Your task to perform on an android device: What's the weather going to be this weekend? Image 0: 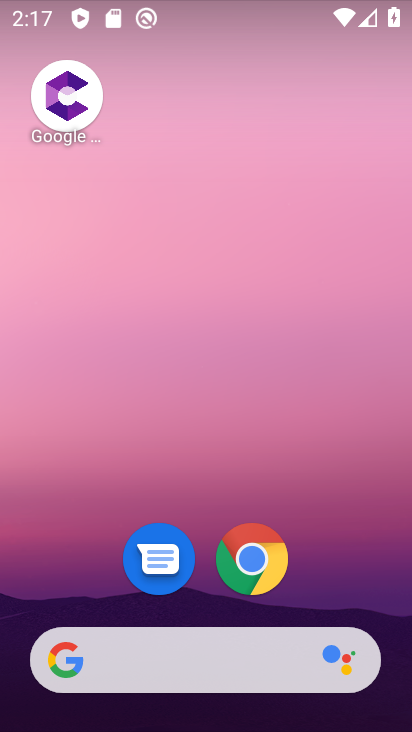
Step 0: drag from (192, 614) to (236, 64)
Your task to perform on an android device: What's the weather going to be this weekend? Image 1: 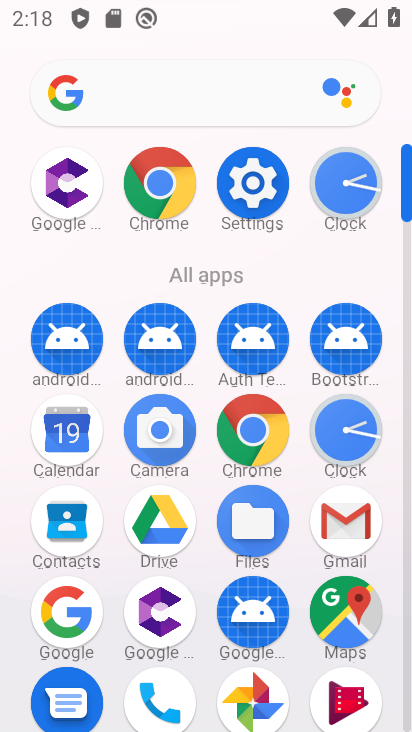
Step 1: click (218, 95)
Your task to perform on an android device: What's the weather going to be this weekend? Image 2: 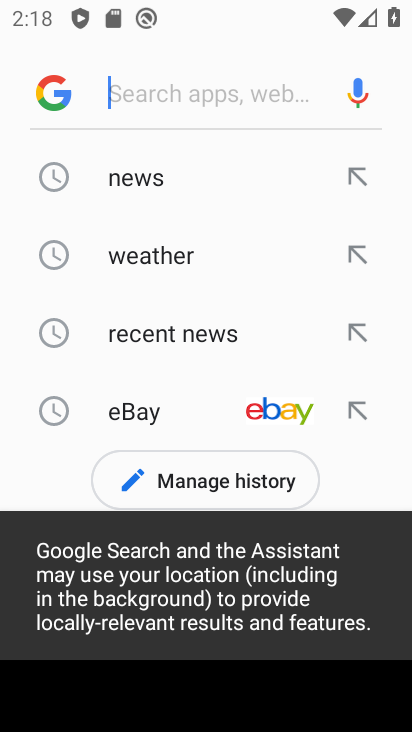
Step 2: click (148, 257)
Your task to perform on an android device: What's the weather going to be this weekend? Image 3: 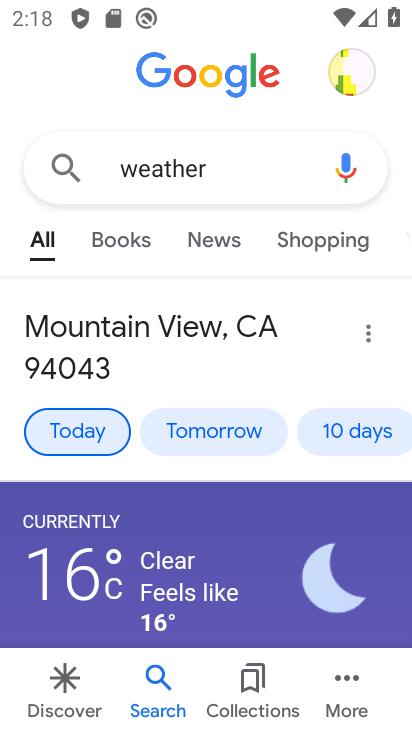
Step 3: task complete